Your task to perform on an android device: open app "Fetch Rewards" (install if not already installed) and go to login screen Image 0: 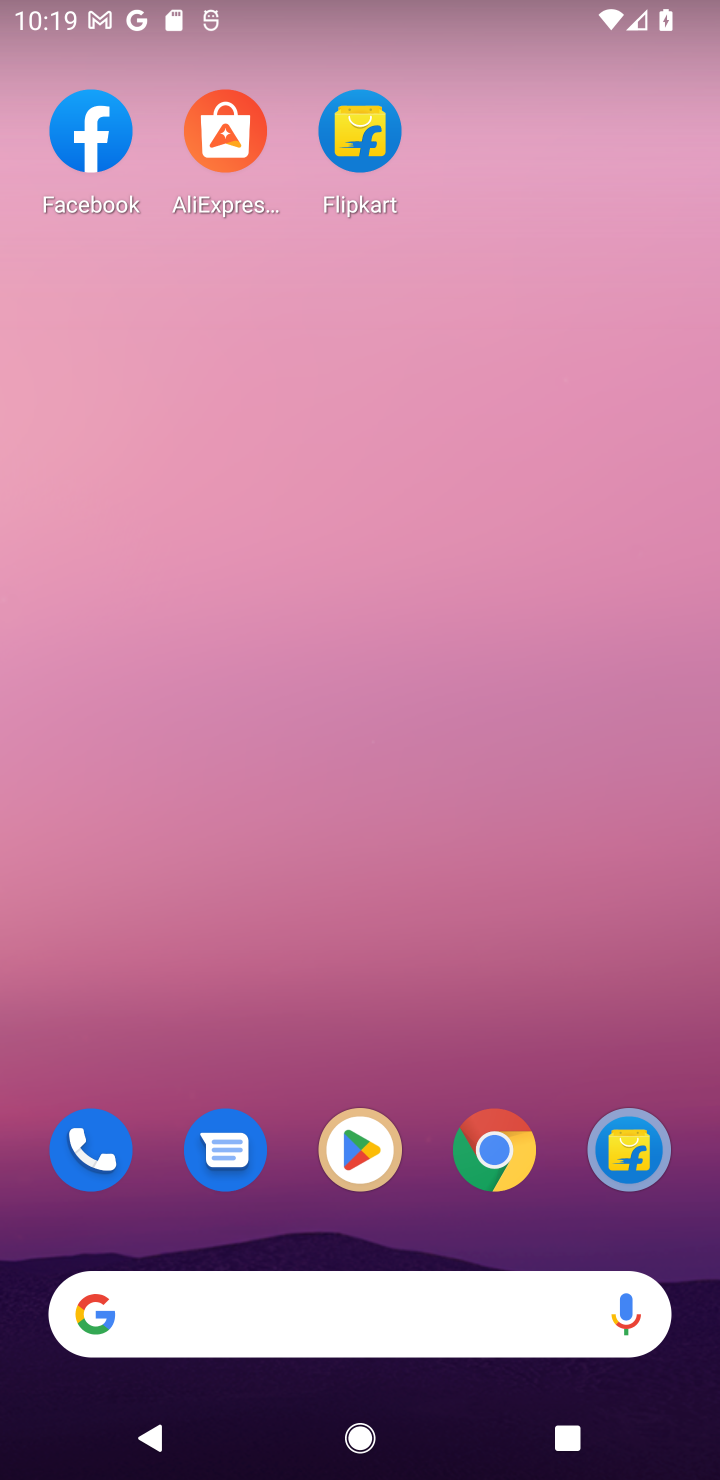
Step 0: click (392, 1142)
Your task to perform on an android device: open app "Fetch Rewards" (install if not already installed) and go to login screen Image 1: 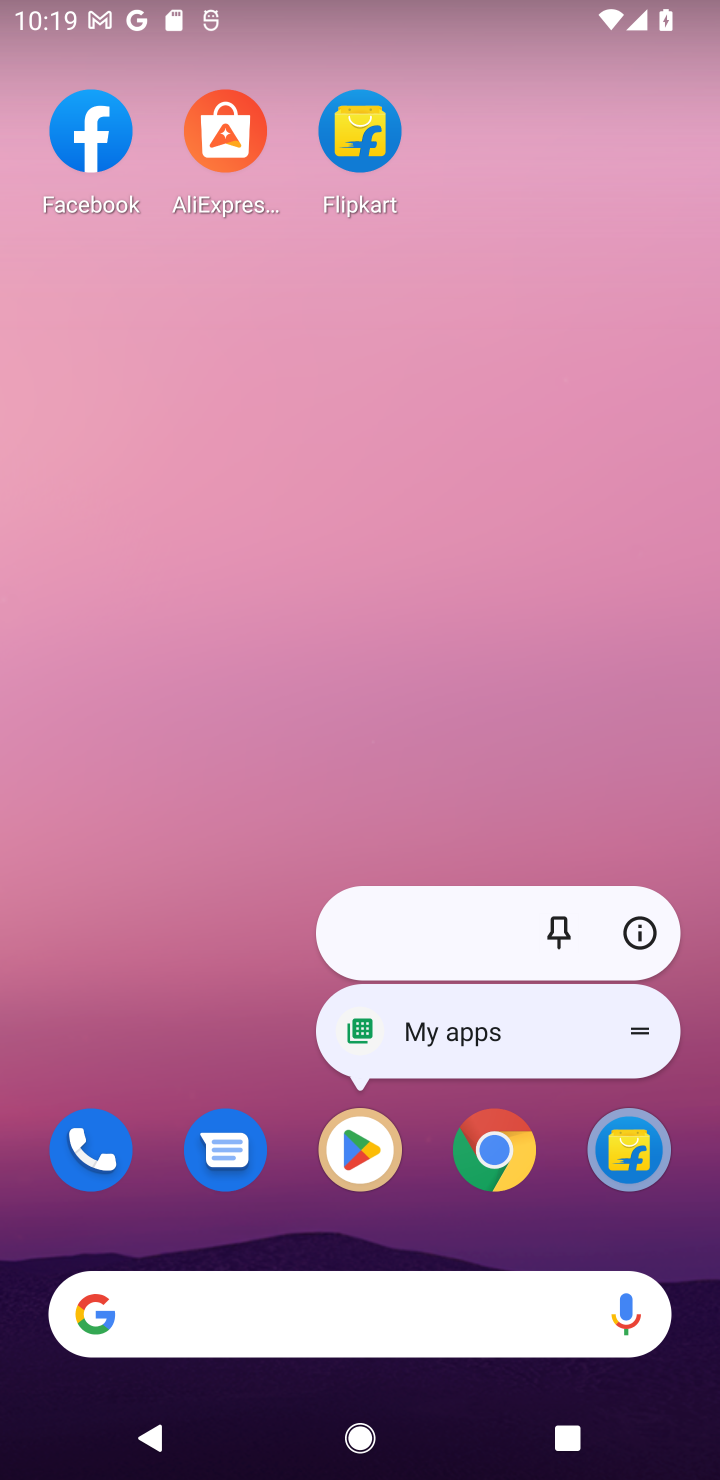
Step 1: click (392, 1142)
Your task to perform on an android device: open app "Fetch Rewards" (install if not already installed) and go to login screen Image 2: 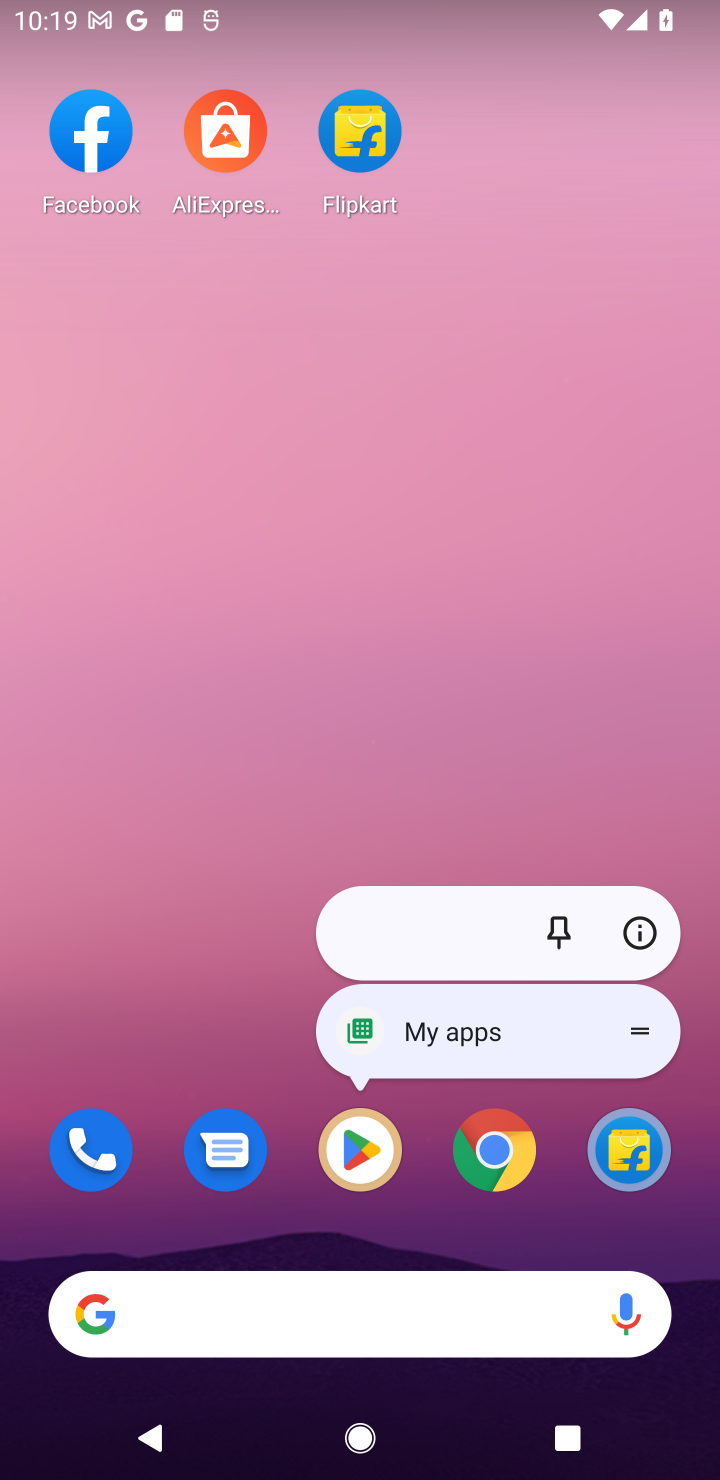
Step 2: click (381, 1149)
Your task to perform on an android device: open app "Fetch Rewards" (install if not already installed) and go to login screen Image 3: 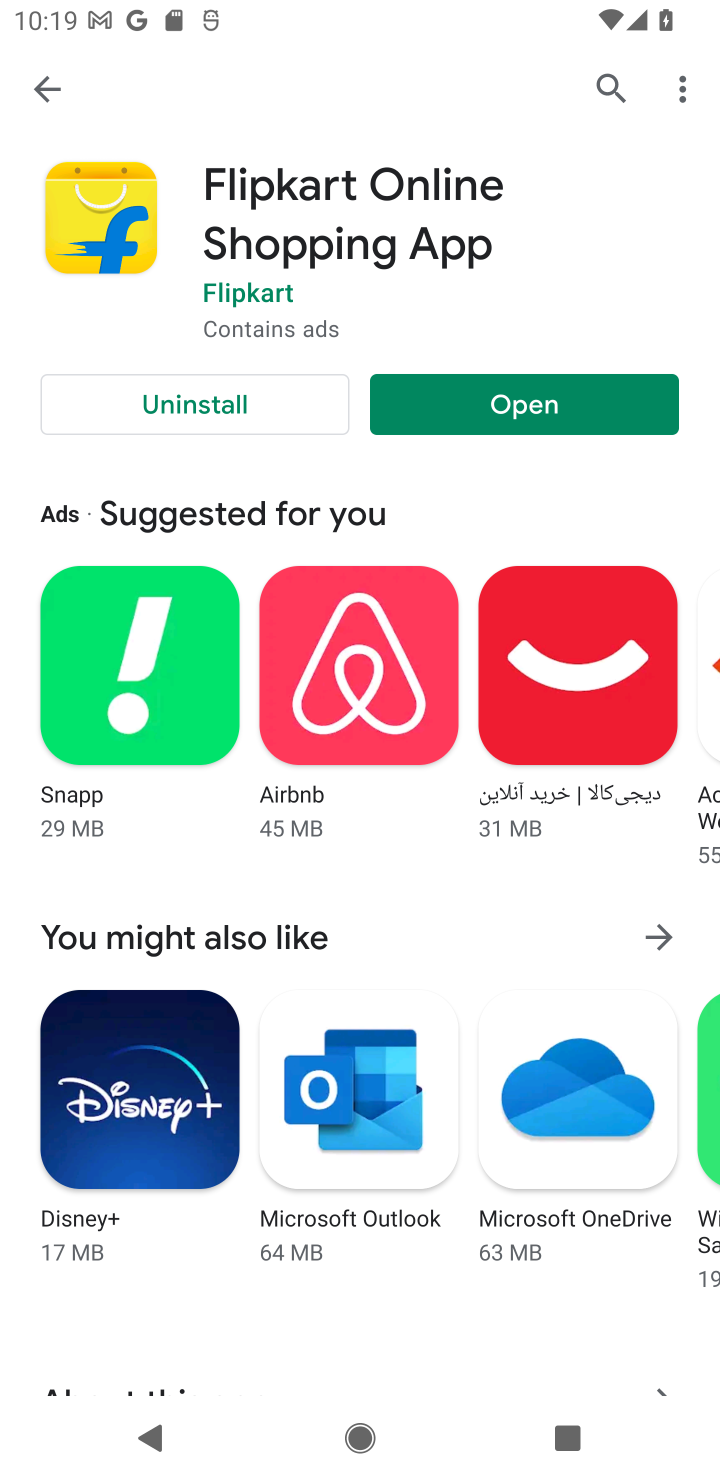
Step 3: click (598, 83)
Your task to perform on an android device: open app "Fetch Rewards" (install if not already installed) and go to login screen Image 4: 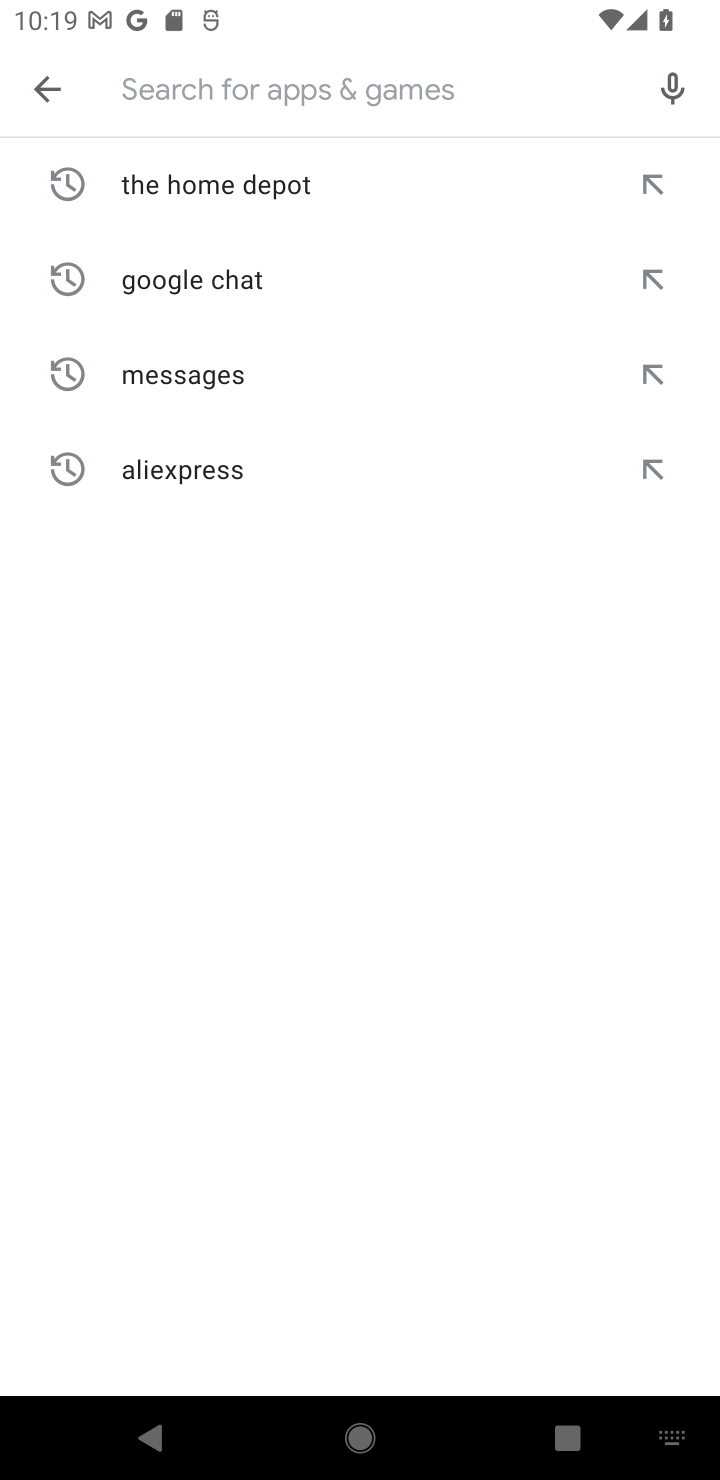
Step 4: type "Fetch Rewards"
Your task to perform on an android device: open app "Fetch Rewards" (install if not already installed) and go to login screen Image 5: 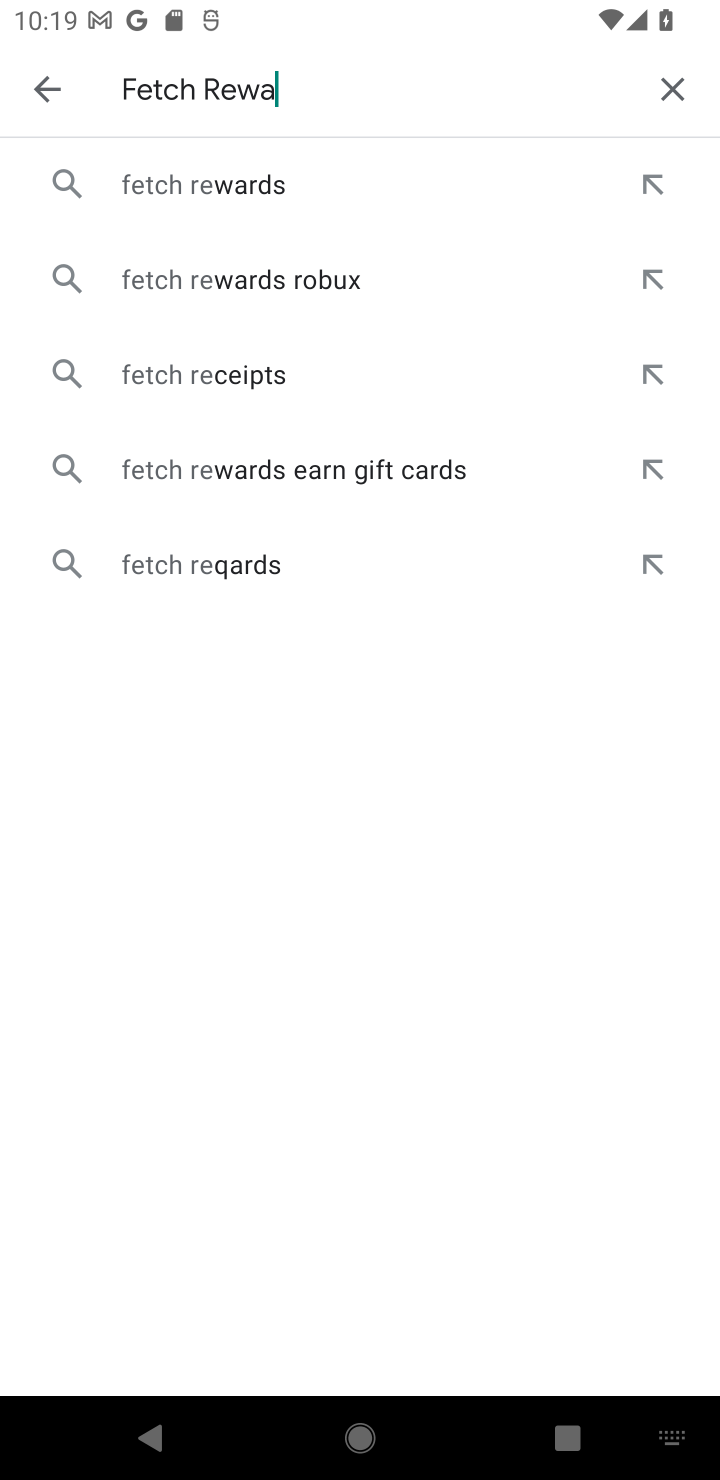
Step 5: type ""
Your task to perform on an android device: open app "Fetch Rewards" (install if not already installed) and go to login screen Image 6: 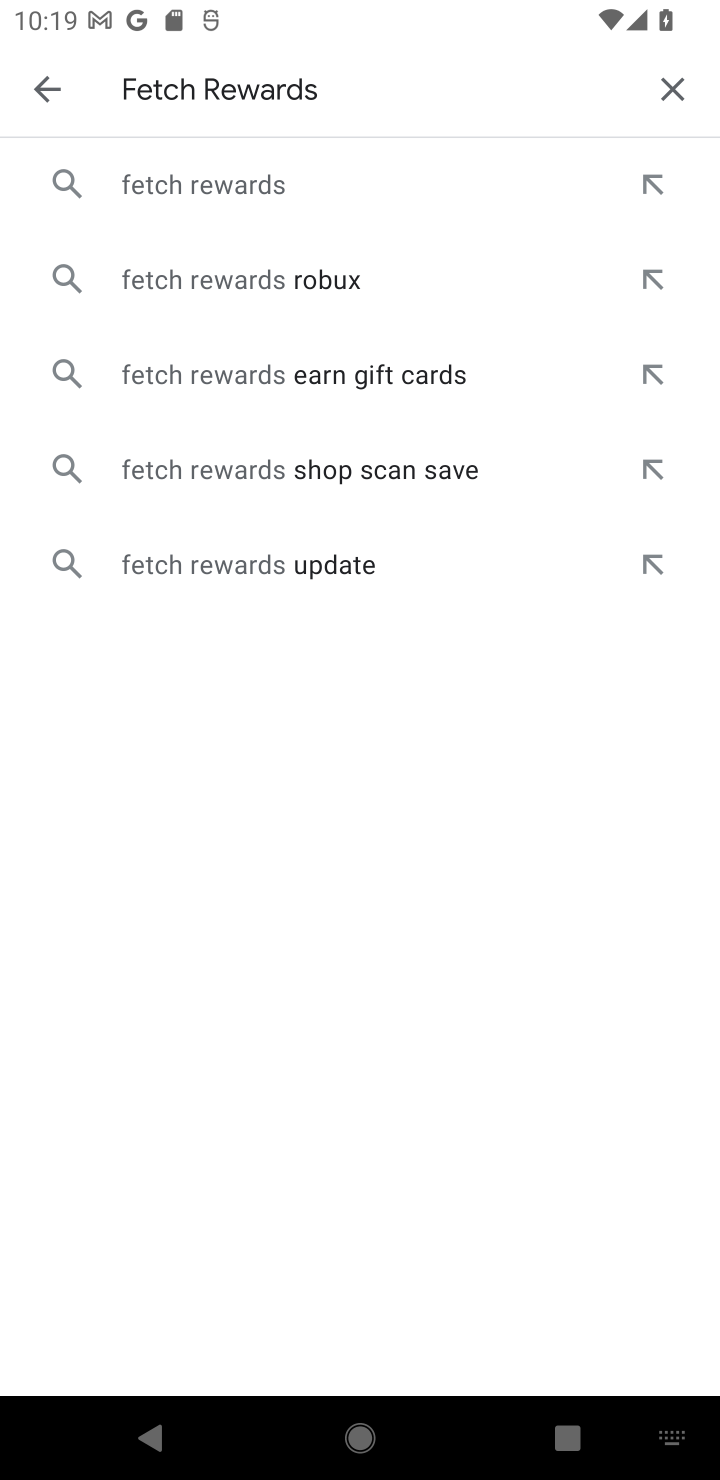
Step 6: click (284, 196)
Your task to perform on an android device: open app "Fetch Rewards" (install if not already installed) and go to login screen Image 7: 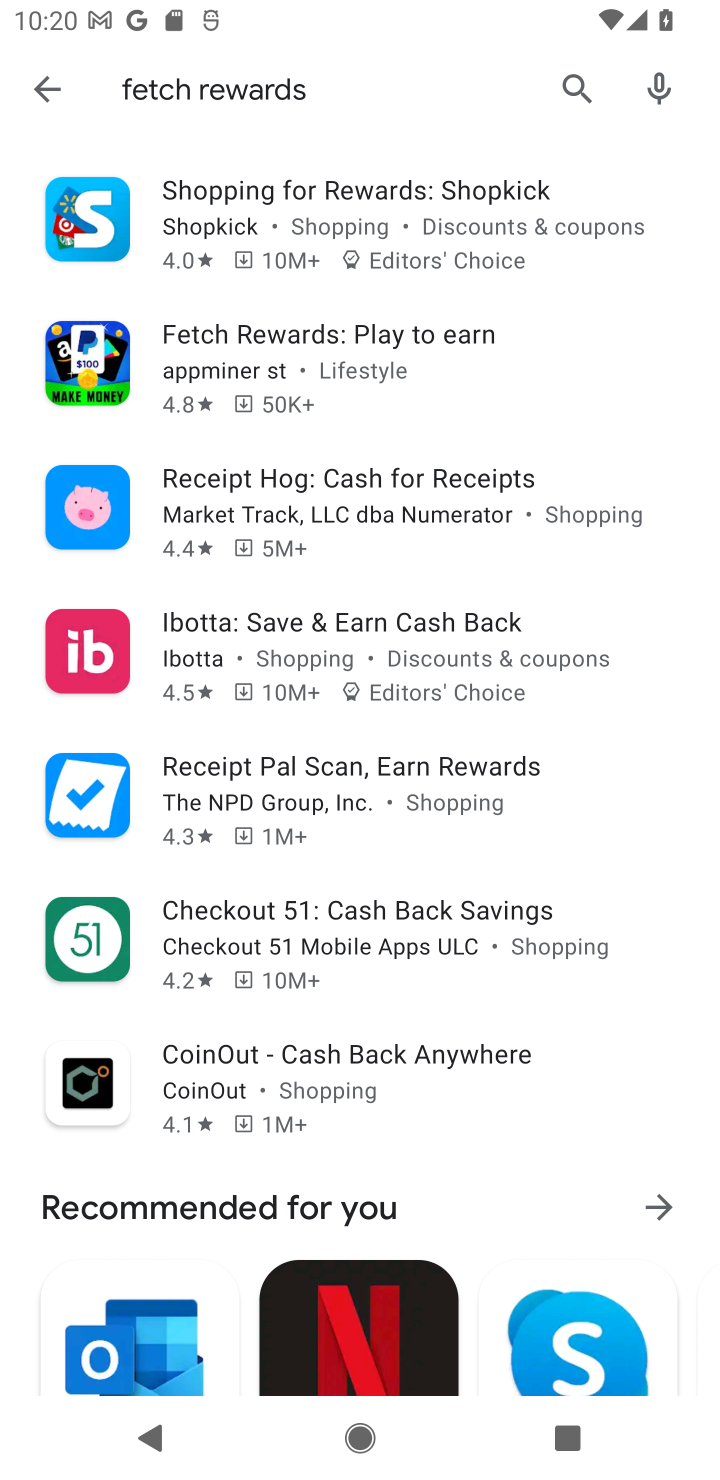
Step 7: task complete